Your task to perform on an android device: turn on improve location accuracy Image 0: 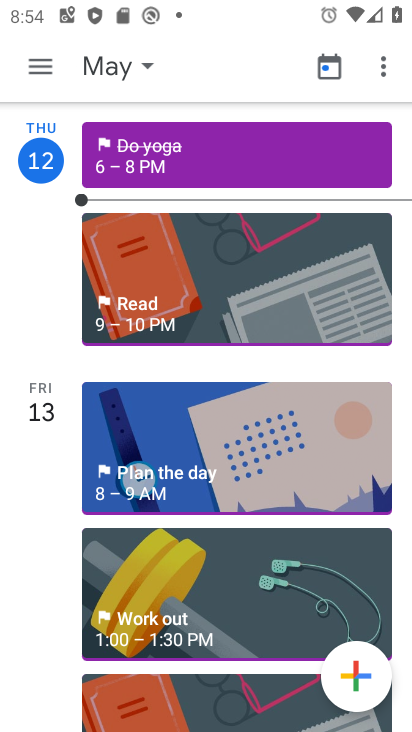
Step 0: press home button
Your task to perform on an android device: turn on improve location accuracy Image 1: 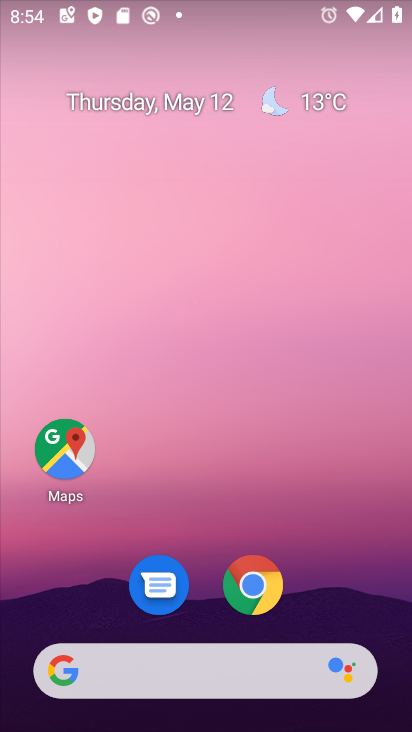
Step 1: drag from (227, 491) to (183, 34)
Your task to perform on an android device: turn on improve location accuracy Image 2: 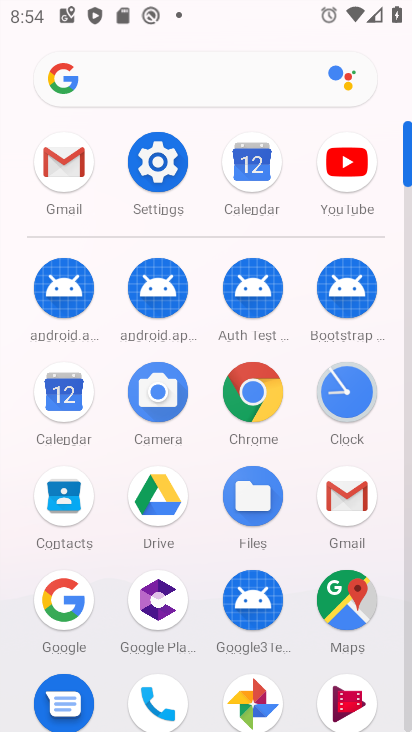
Step 2: click (162, 171)
Your task to perform on an android device: turn on improve location accuracy Image 3: 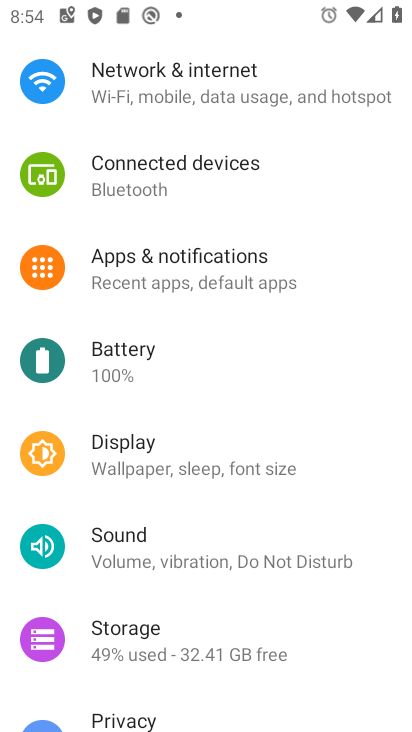
Step 3: drag from (211, 589) to (215, 171)
Your task to perform on an android device: turn on improve location accuracy Image 4: 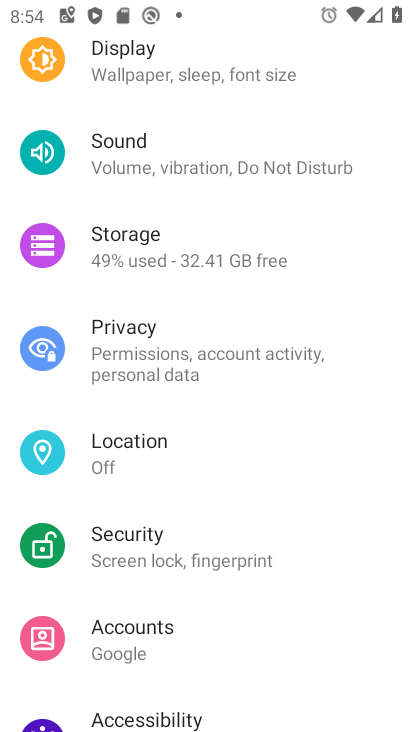
Step 4: click (156, 461)
Your task to perform on an android device: turn on improve location accuracy Image 5: 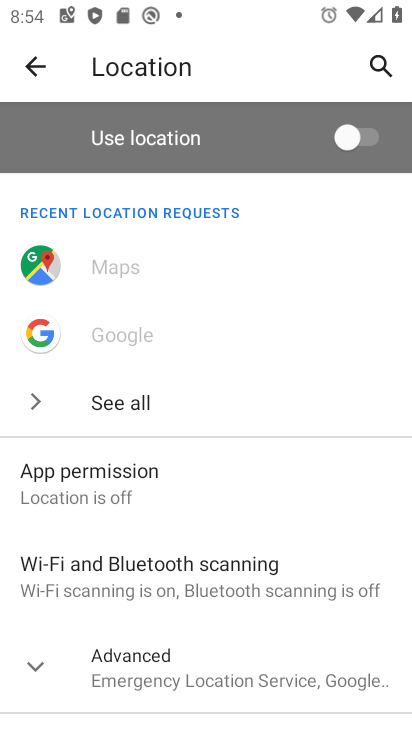
Step 5: click (40, 658)
Your task to perform on an android device: turn on improve location accuracy Image 6: 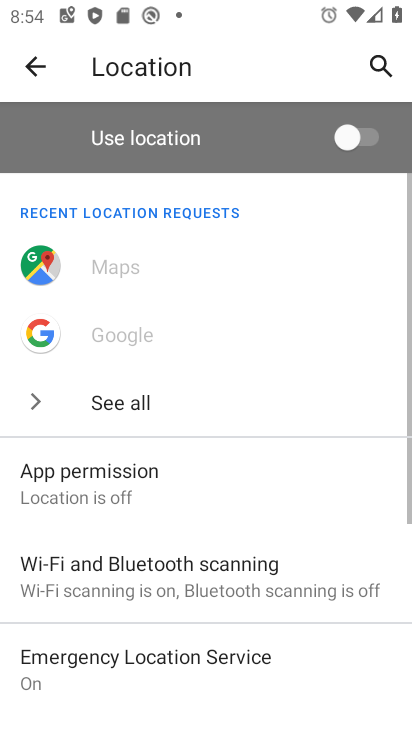
Step 6: drag from (236, 515) to (248, 160)
Your task to perform on an android device: turn on improve location accuracy Image 7: 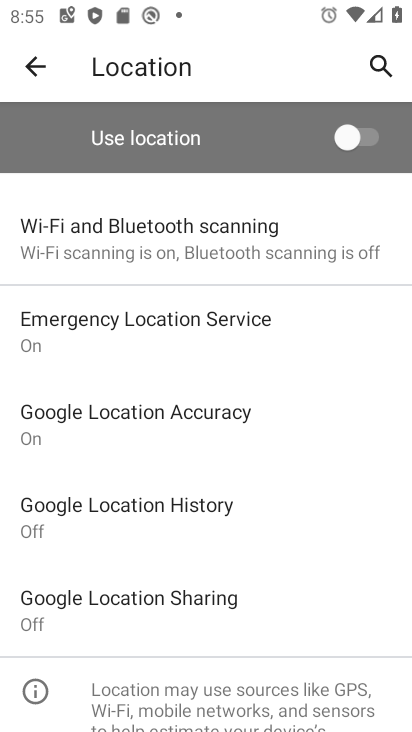
Step 7: click (180, 412)
Your task to perform on an android device: turn on improve location accuracy Image 8: 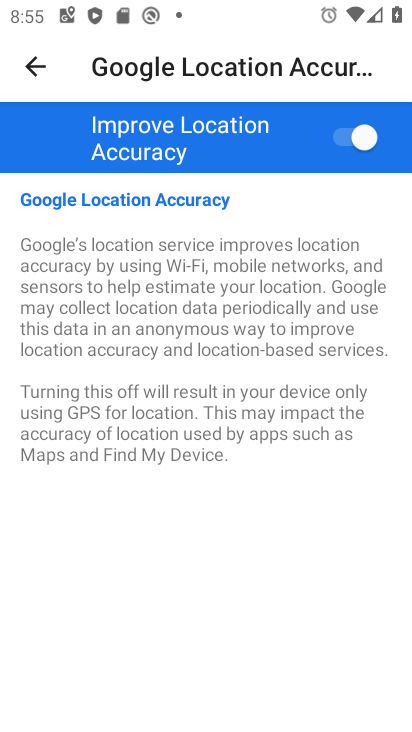
Step 8: task complete